Your task to perform on an android device: Open sound settings Image 0: 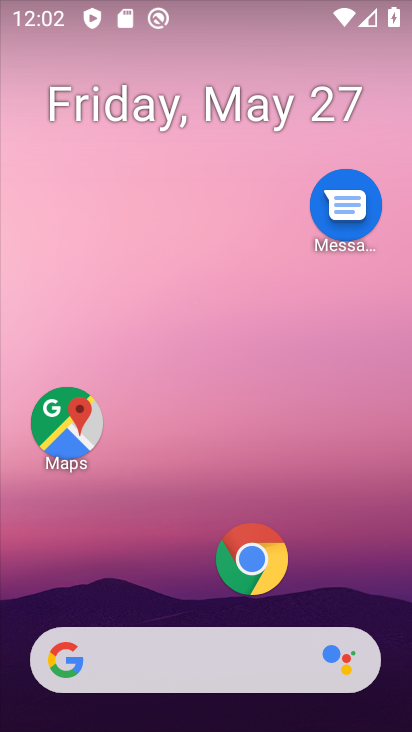
Step 0: drag from (290, 653) to (293, 74)
Your task to perform on an android device: Open sound settings Image 1: 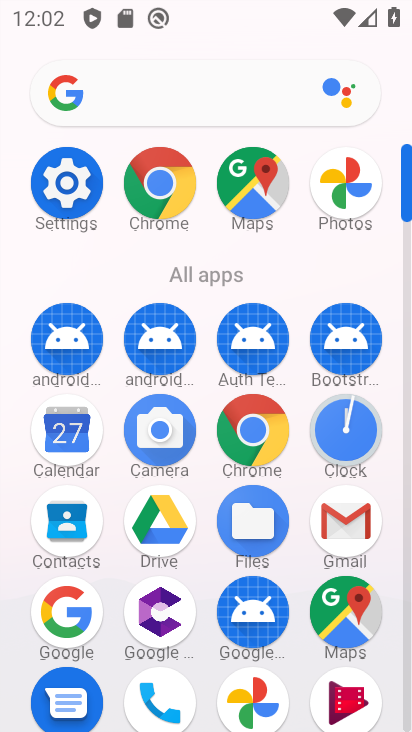
Step 1: click (73, 204)
Your task to perform on an android device: Open sound settings Image 2: 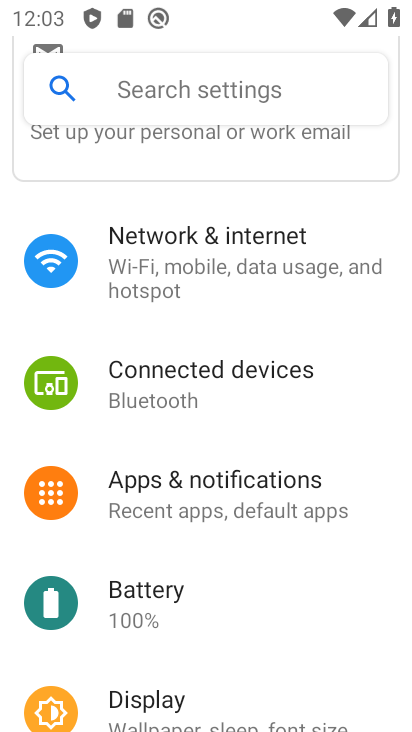
Step 2: drag from (160, 557) to (182, 265)
Your task to perform on an android device: Open sound settings Image 3: 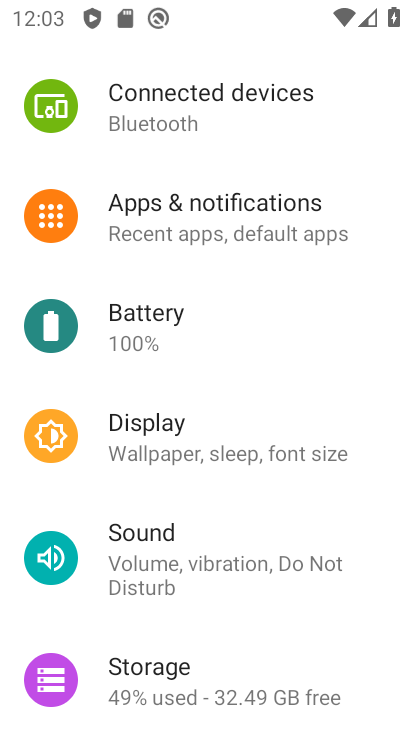
Step 3: click (160, 555)
Your task to perform on an android device: Open sound settings Image 4: 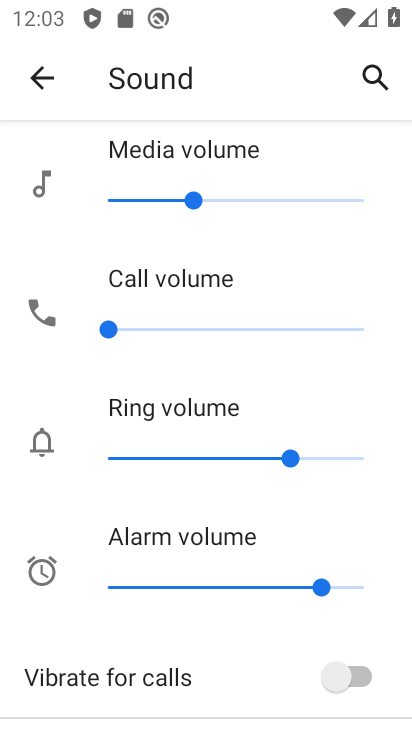
Step 4: task complete